Your task to perform on an android device: Open Google Chrome Image 0: 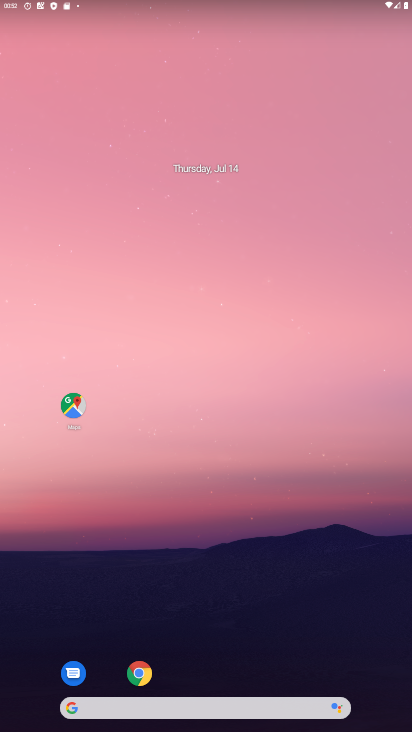
Step 0: click (140, 673)
Your task to perform on an android device: Open Google Chrome Image 1: 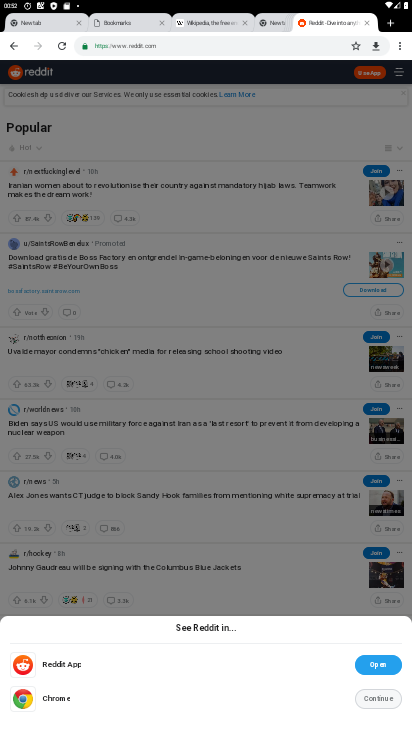
Step 1: task complete